Your task to perform on an android device: Open sound settings Image 0: 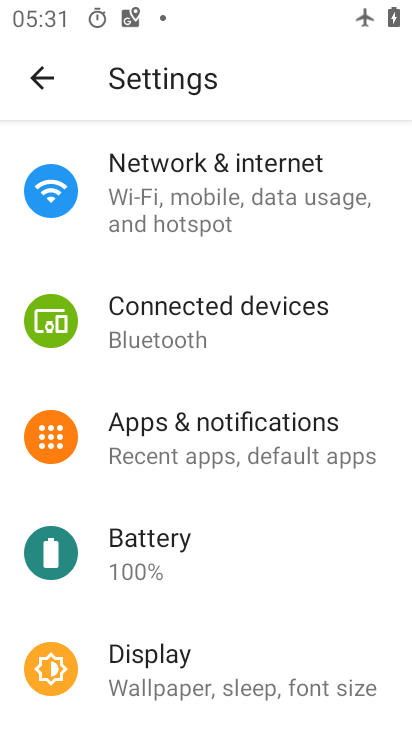
Step 0: press home button
Your task to perform on an android device: Open sound settings Image 1: 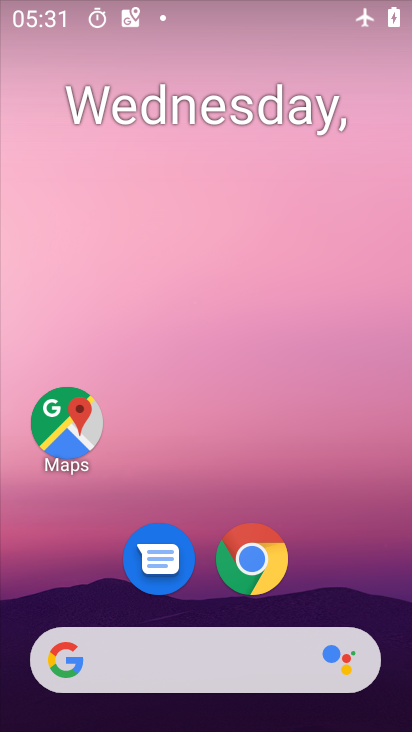
Step 1: drag from (345, 573) to (233, 55)
Your task to perform on an android device: Open sound settings Image 2: 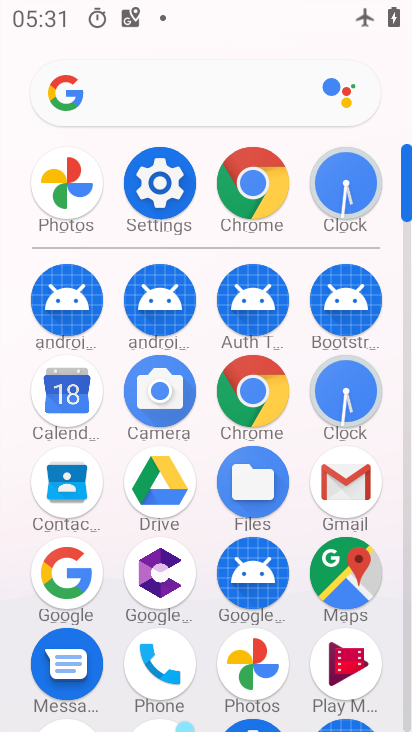
Step 2: click (161, 192)
Your task to perform on an android device: Open sound settings Image 3: 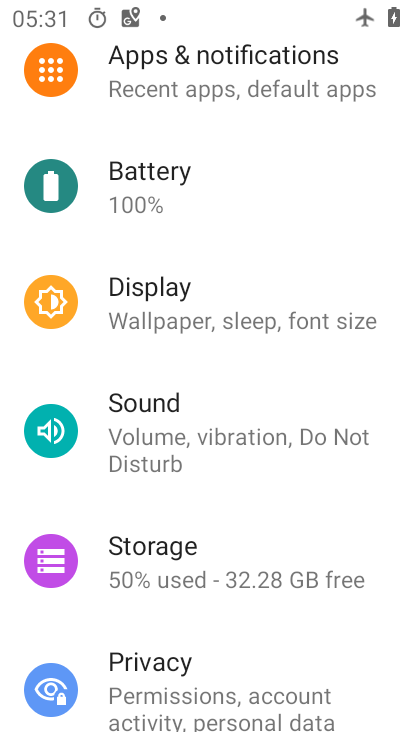
Step 3: click (200, 454)
Your task to perform on an android device: Open sound settings Image 4: 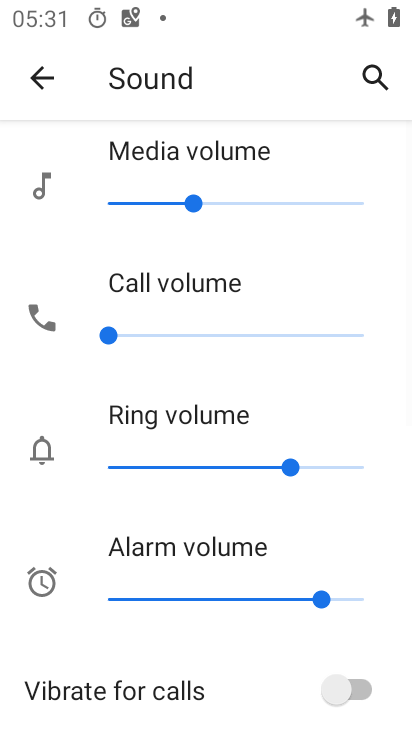
Step 4: task complete